Your task to perform on an android device: Open maps Image 0: 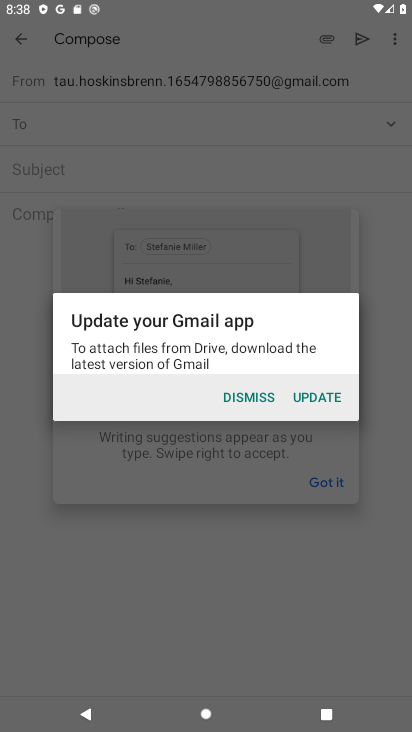
Step 0: task complete